Your task to perform on an android device: Go to sound settings Image 0: 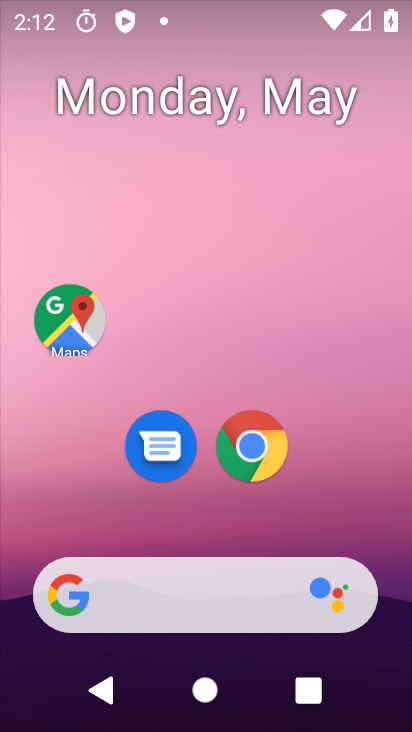
Step 0: drag from (185, 628) to (199, 165)
Your task to perform on an android device: Go to sound settings Image 1: 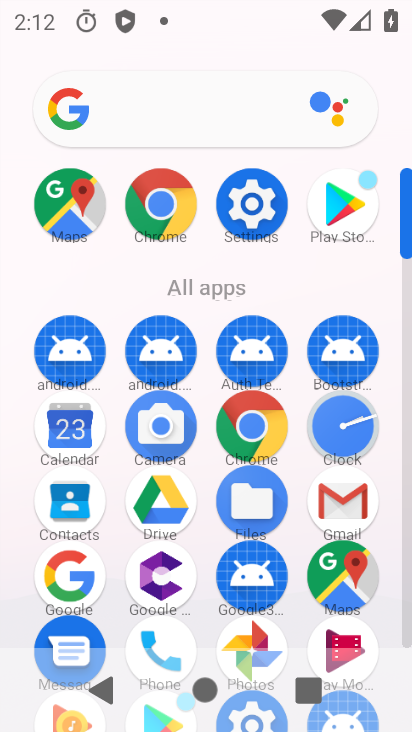
Step 1: click (272, 217)
Your task to perform on an android device: Go to sound settings Image 2: 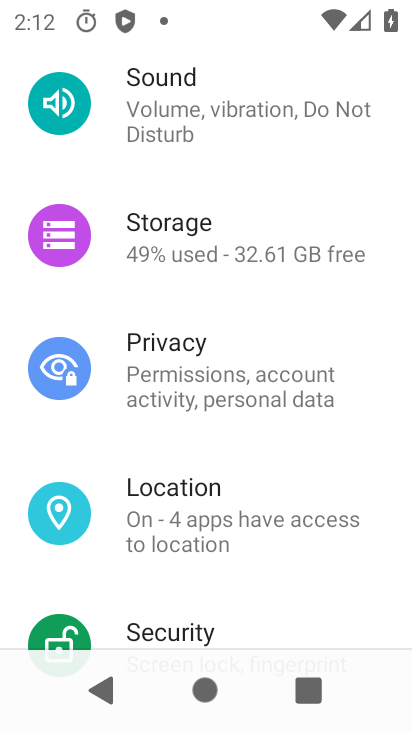
Step 2: click (168, 131)
Your task to perform on an android device: Go to sound settings Image 3: 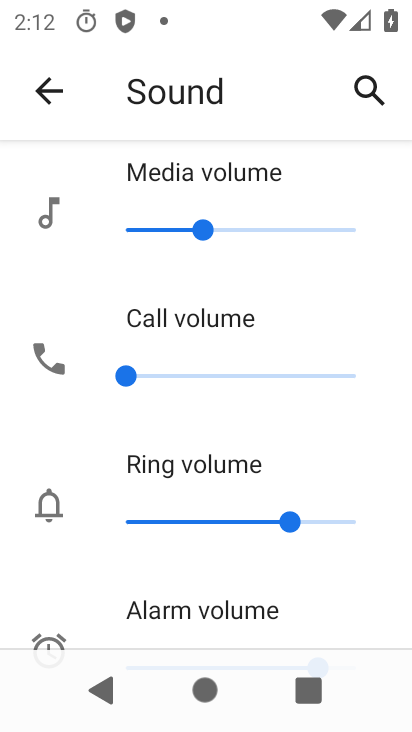
Step 3: task complete